Your task to perform on an android device: Go to Amazon Image 0: 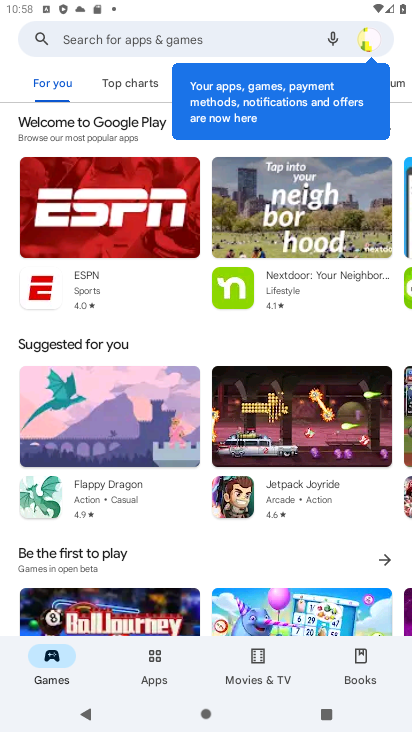
Step 0: task complete